Your task to perform on an android device: Turn off the flashlight Image 0: 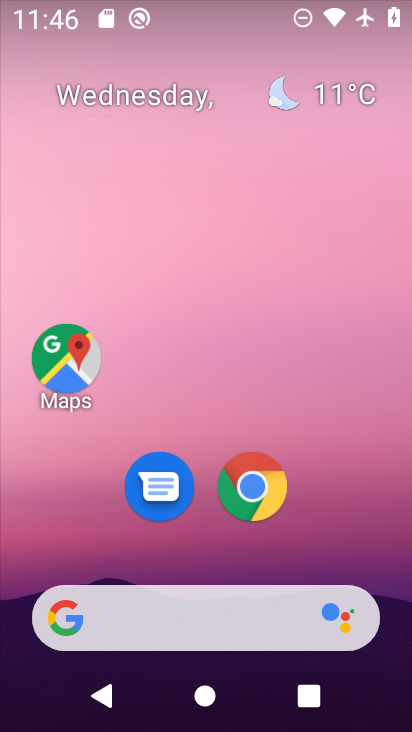
Step 0: drag from (350, 544) to (268, 35)
Your task to perform on an android device: Turn off the flashlight Image 1: 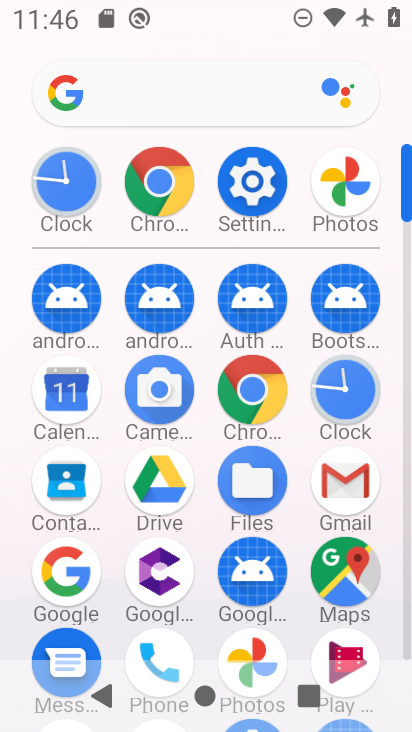
Step 1: drag from (8, 558) to (15, 320)
Your task to perform on an android device: Turn off the flashlight Image 2: 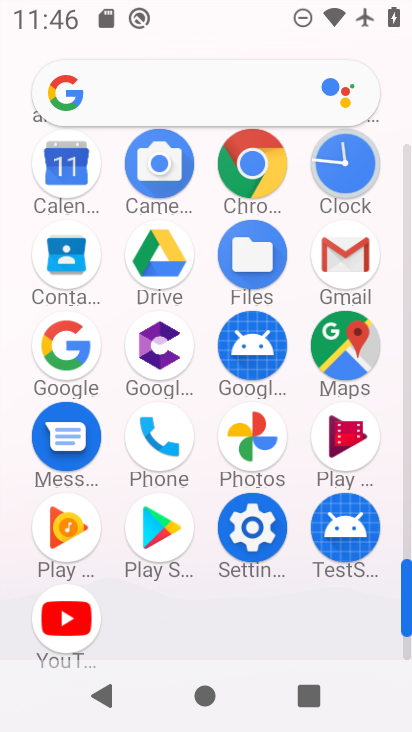
Step 2: click (253, 523)
Your task to perform on an android device: Turn off the flashlight Image 3: 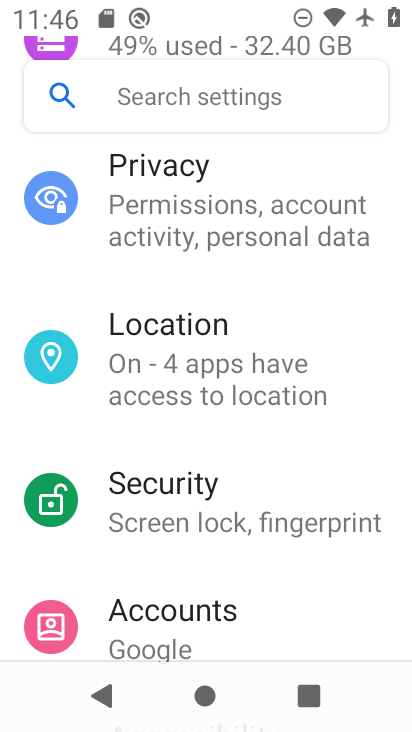
Step 3: drag from (307, 305) to (305, 589)
Your task to perform on an android device: Turn off the flashlight Image 4: 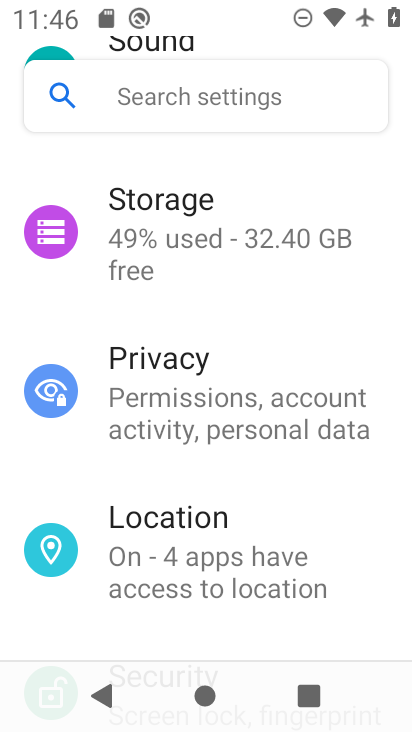
Step 4: click (263, 581)
Your task to perform on an android device: Turn off the flashlight Image 5: 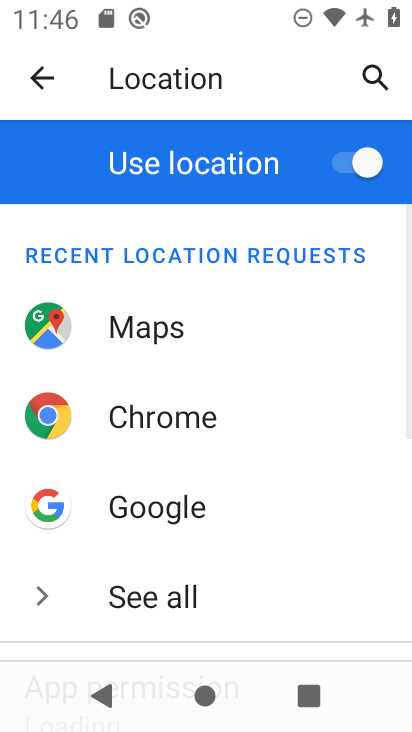
Step 5: drag from (287, 553) to (277, 282)
Your task to perform on an android device: Turn off the flashlight Image 6: 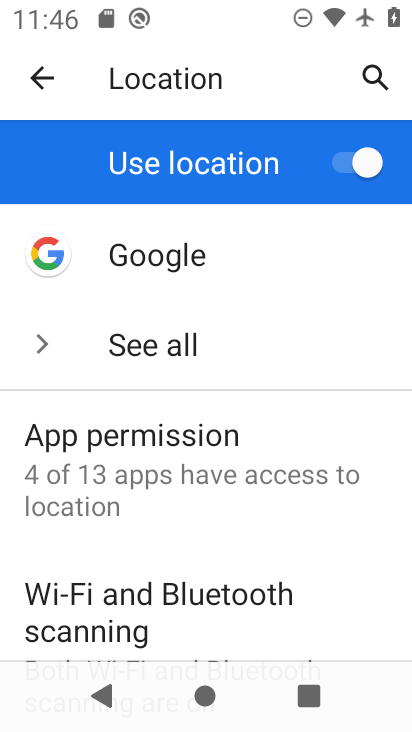
Step 6: press back button
Your task to perform on an android device: Turn off the flashlight Image 7: 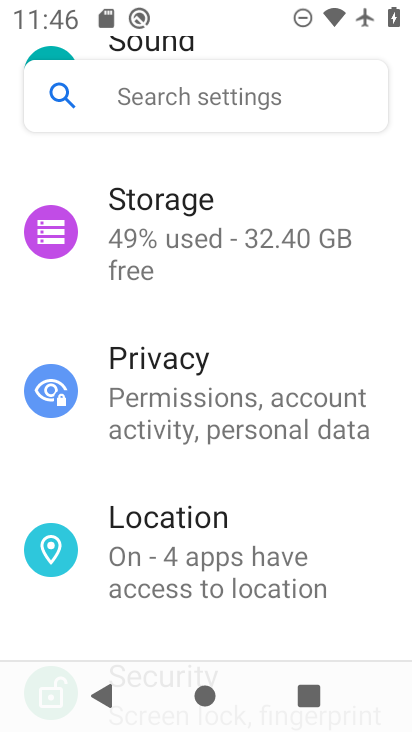
Step 7: drag from (283, 236) to (301, 596)
Your task to perform on an android device: Turn off the flashlight Image 8: 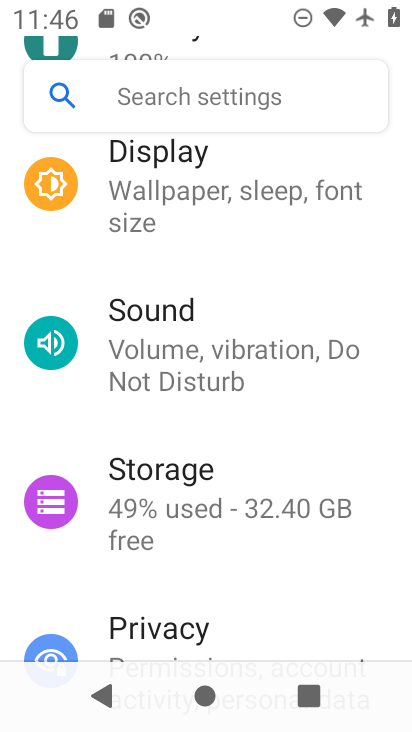
Step 8: drag from (316, 285) to (306, 611)
Your task to perform on an android device: Turn off the flashlight Image 9: 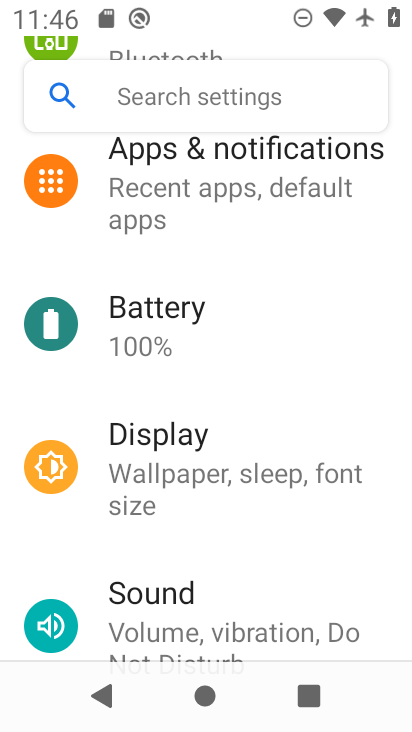
Step 9: drag from (292, 221) to (291, 588)
Your task to perform on an android device: Turn off the flashlight Image 10: 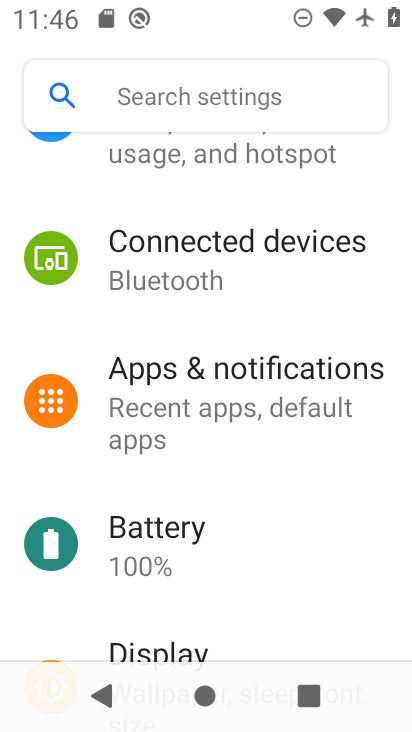
Step 10: drag from (290, 245) to (289, 621)
Your task to perform on an android device: Turn off the flashlight Image 11: 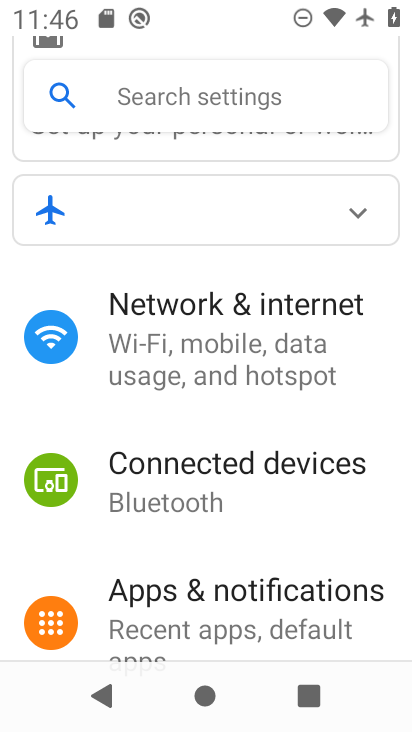
Step 11: click (255, 342)
Your task to perform on an android device: Turn off the flashlight Image 12: 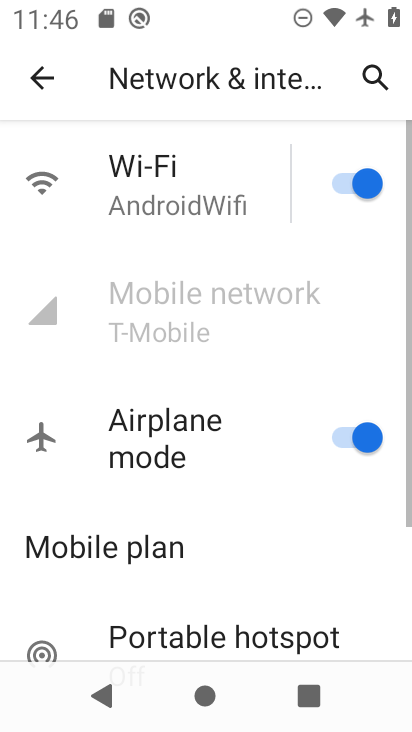
Step 12: drag from (234, 577) to (231, 208)
Your task to perform on an android device: Turn off the flashlight Image 13: 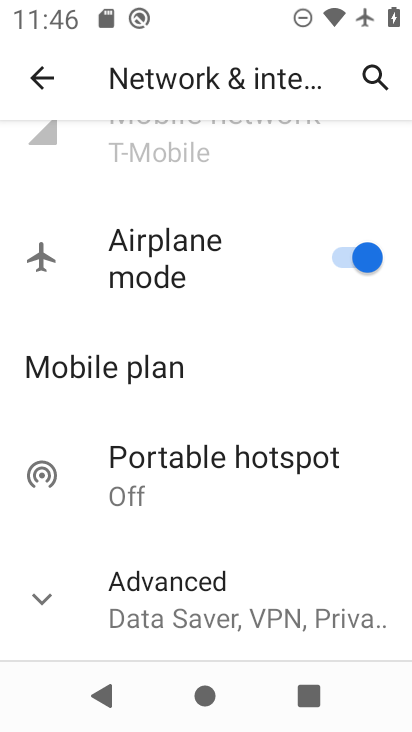
Step 13: click (47, 588)
Your task to perform on an android device: Turn off the flashlight Image 14: 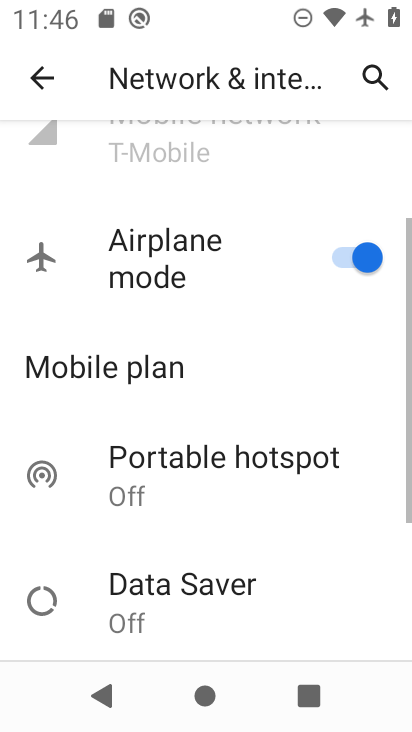
Step 14: task complete